Your task to perform on an android device: find snoozed emails in the gmail app Image 0: 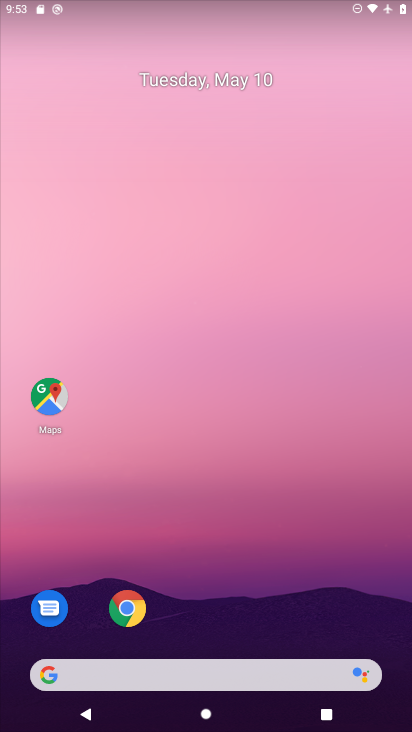
Step 0: drag from (233, 627) to (283, 279)
Your task to perform on an android device: find snoozed emails in the gmail app Image 1: 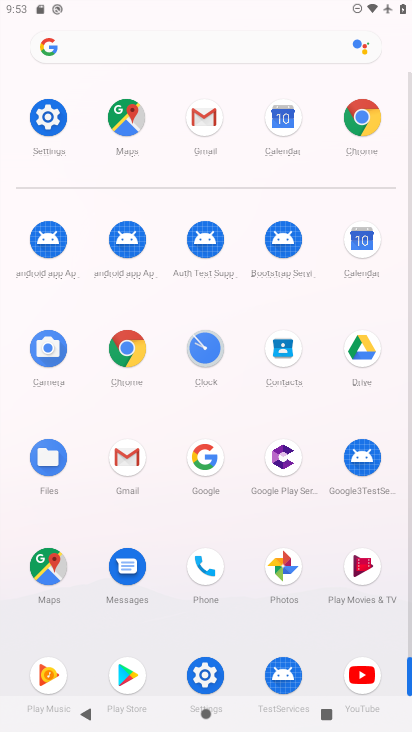
Step 1: click (191, 121)
Your task to perform on an android device: find snoozed emails in the gmail app Image 2: 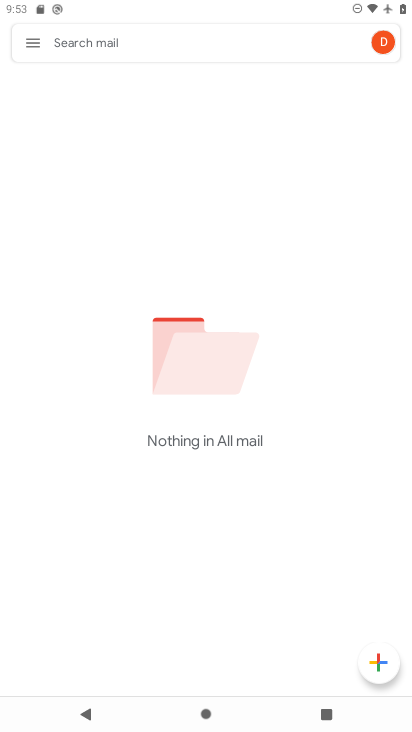
Step 2: click (23, 35)
Your task to perform on an android device: find snoozed emails in the gmail app Image 3: 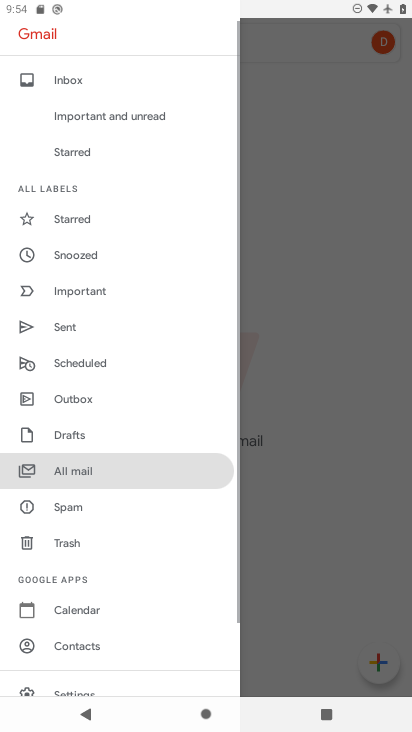
Step 3: click (74, 260)
Your task to perform on an android device: find snoozed emails in the gmail app Image 4: 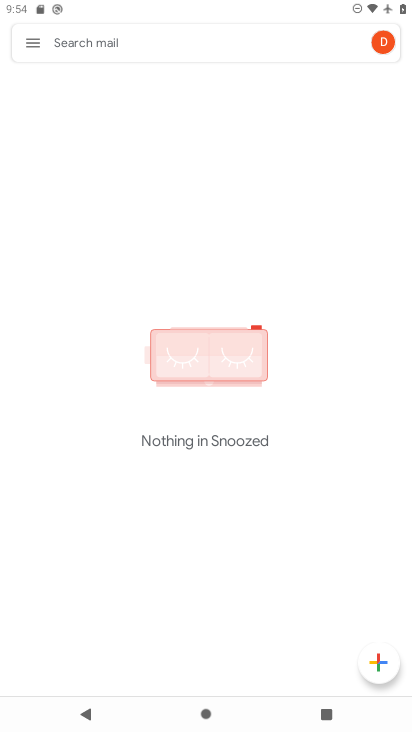
Step 4: task complete